Your task to perform on an android device: What's on my calendar today? Image 0: 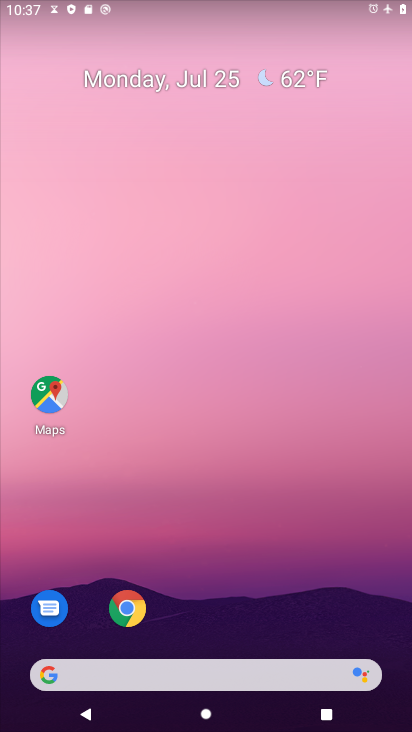
Step 0: drag from (160, 682) to (181, 121)
Your task to perform on an android device: What's on my calendar today? Image 1: 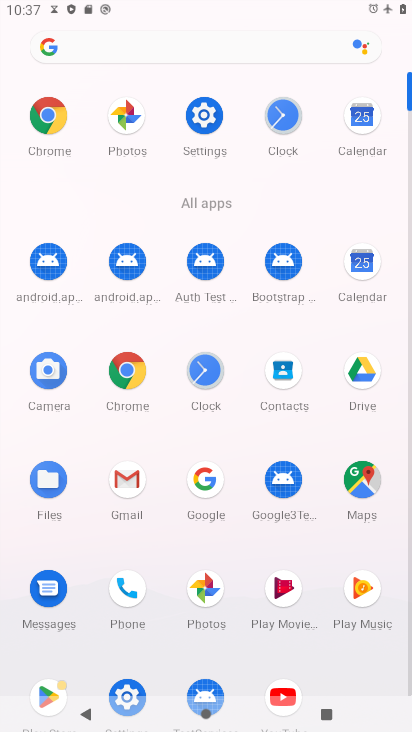
Step 1: click (361, 118)
Your task to perform on an android device: What's on my calendar today? Image 2: 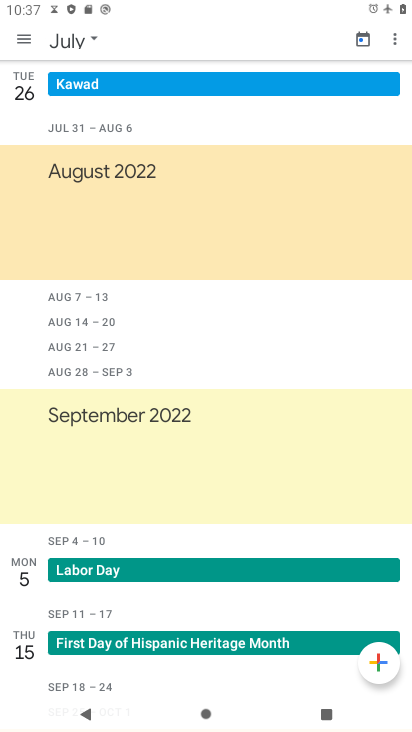
Step 2: click (364, 38)
Your task to perform on an android device: What's on my calendar today? Image 3: 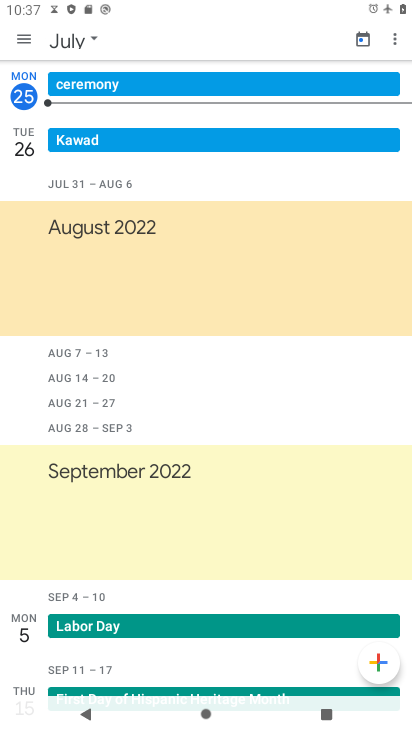
Step 3: click (81, 35)
Your task to perform on an android device: What's on my calendar today? Image 4: 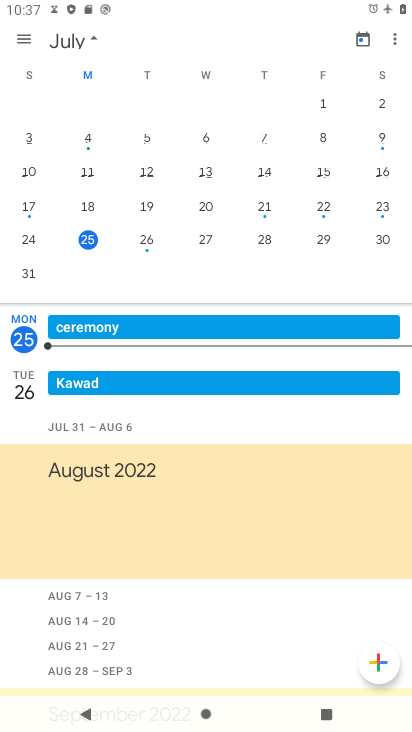
Step 4: click (82, 237)
Your task to perform on an android device: What's on my calendar today? Image 5: 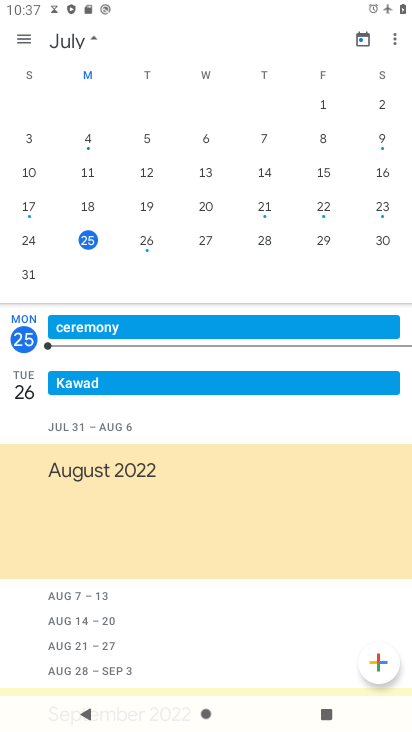
Step 5: click (19, 41)
Your task to perform on an android device: What's on my calendar today? Image 6: 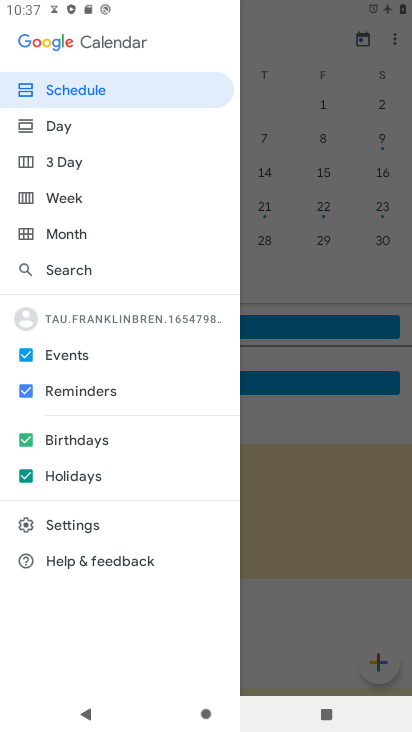
Step 6: click (60, 84)
Your task to perform on an android device: What's on my calendar today? Image 7: 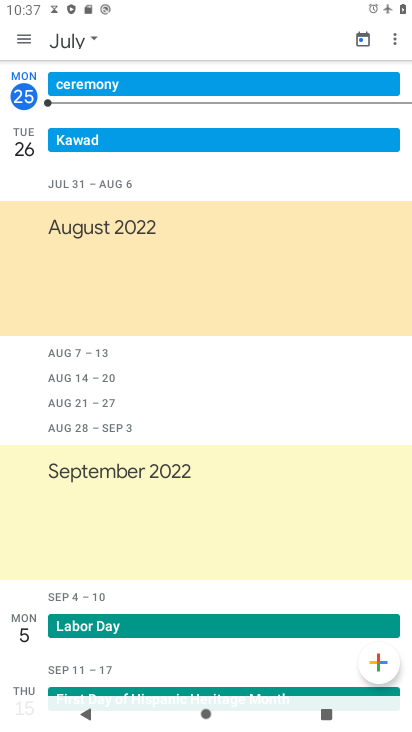
Step 7: task complete